Your task to perform on an android device: Open the calendar app, open the side menu, and click the "Day" option Image 0: 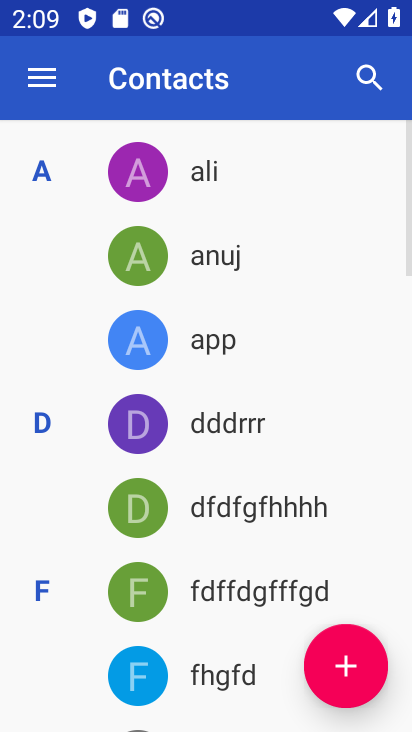
Step 0: press back button
Your task to perform on an android device: Open the calendar app, open the side menu, and click the "Day" option Image 1: 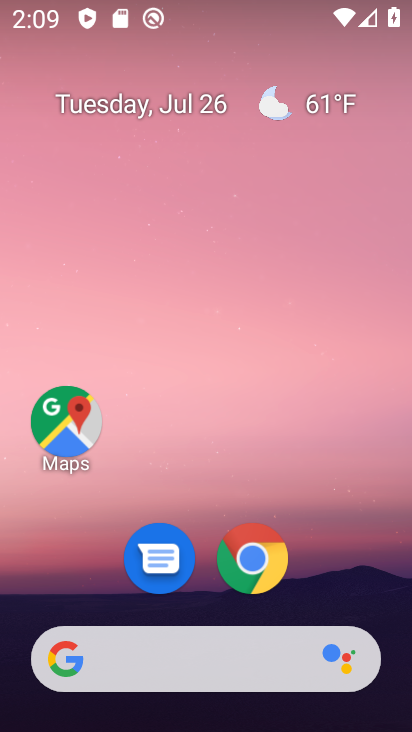
Step 1: drag from (88, 601) to (201, 62)
Your task to perform on an android device: Open the calendar app, open the side menu, and click the "Day" option Image 2: 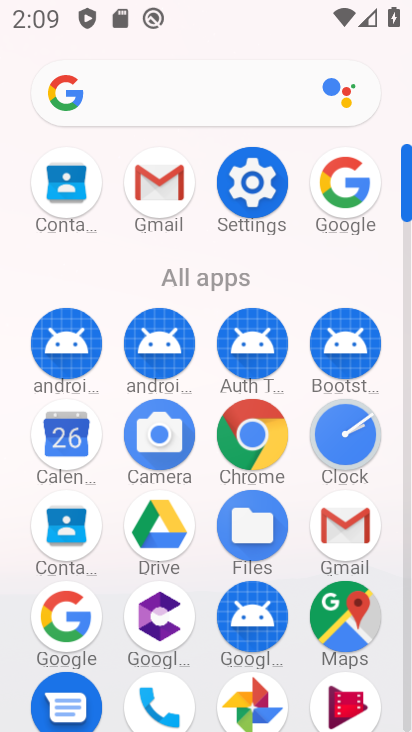
Step 2: click (64, 447)
Your task to perform on an android device: Open the calendar app, open the side menu, and click the "Day" option Image 3: 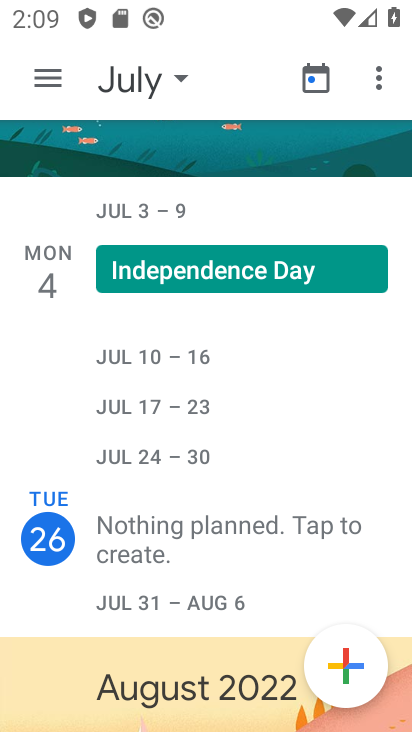
Step 3: click (56, 77)
Your task to perform on an android device: Open the calendar app, open the side menu, and click the "Day" option Image 4: 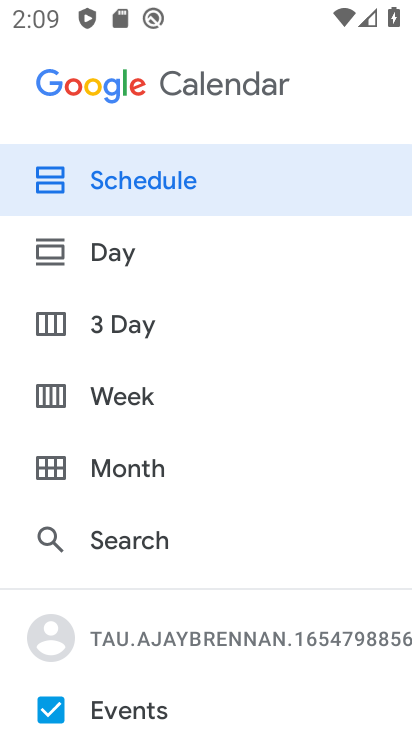
Step 4: click (161, 252)
Your task to perform on an android device: Open the calendar app, open the side menu, and click the "Day" option Image 5: 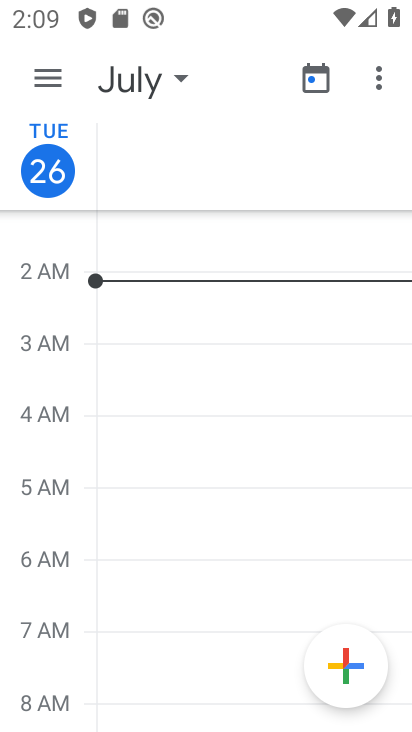
Step 5: task complete